Your task to perform on an android device: delete the emails in spam in the gmail app Image 0: 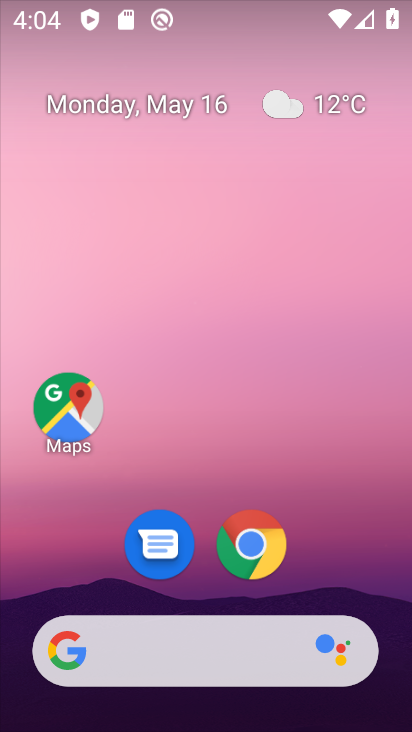
Step 0: drag from (316, 580) to (303, 99)
Your task to perform on an android device: delete the emails in spam in the gmail app Image 1: 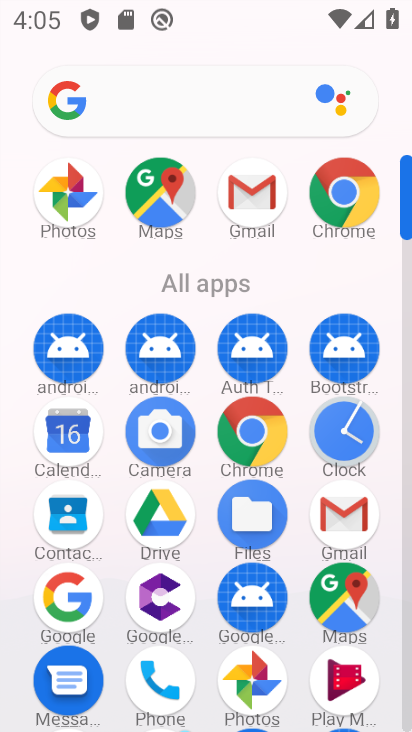
Step 1: click (249, 190)
Your task to perform on an android device: delete the emails in spam in the gmail app Image 2: 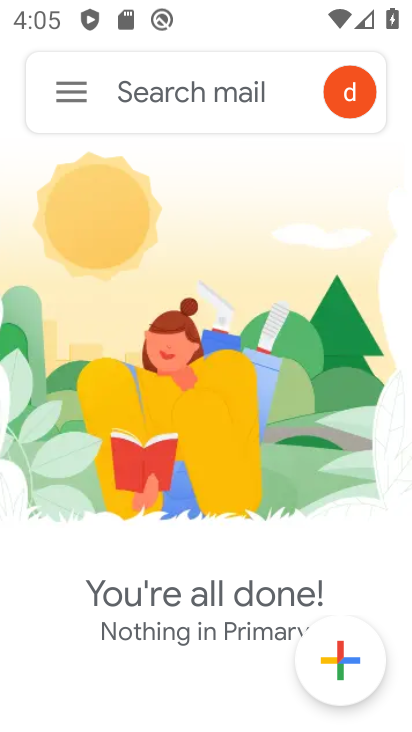
Step 2: click (62, 98)
Your task to perform on an android device: delete the emails in spam in the gmail app Image 3: 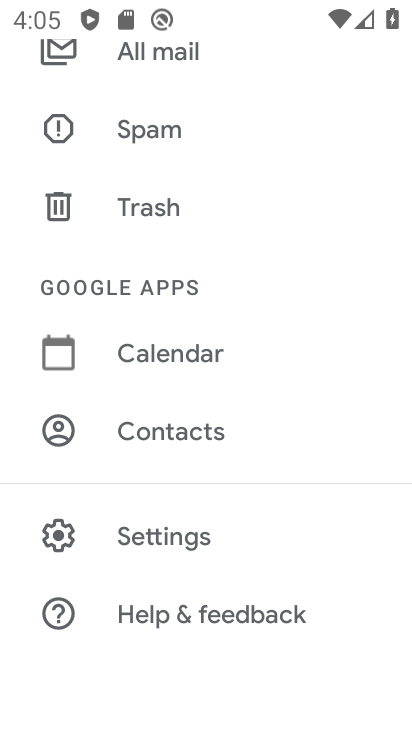
Step 3: click (149, 132)
Your task to perform on an android device: delete the emails in spam in the gmail app Image 4: 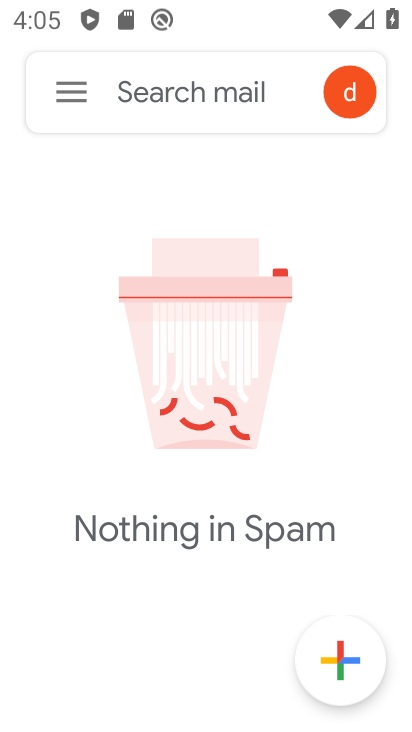
Step 4: task complete